Your task to perform on an android device: Search for sushi restaurants on Maps Image 0: 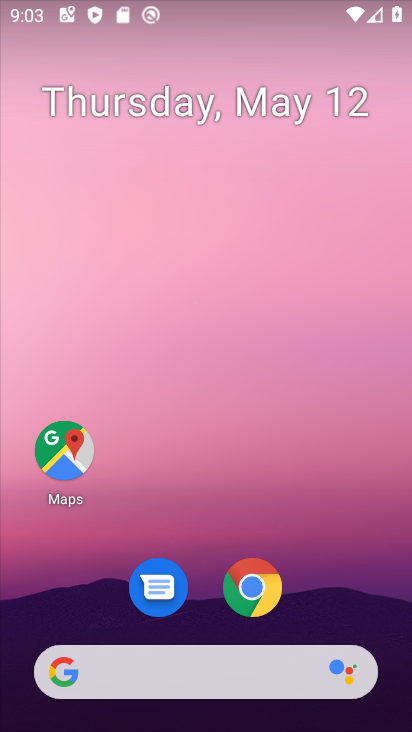
Step 0: drag from (304, 488) to (271, 256)
Your task to perform on an android device: Search for sushi restaurants on Maps Image 1: 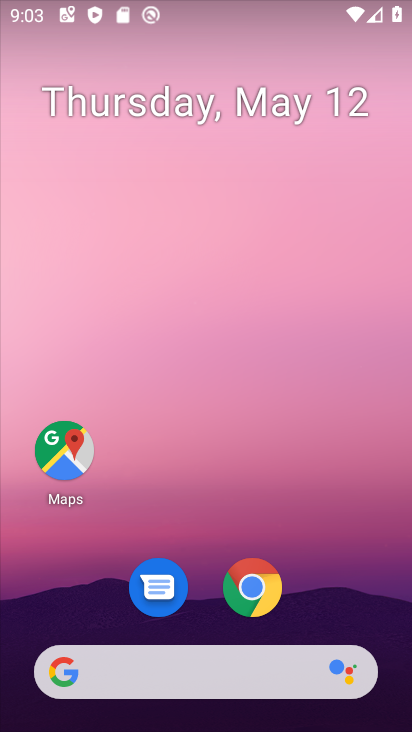
Step 1: drag from (288, 483) to (288, 246)
Your task to perform on an android device: Search for sushi restaurants on Maps Image 2: 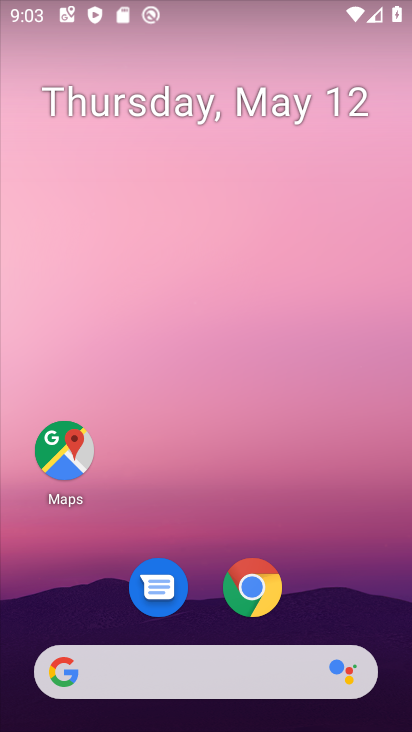
Step 2: click (65, 451)
Your task to perform on an android device: Search for sushi restaurants on Maps Image 3: 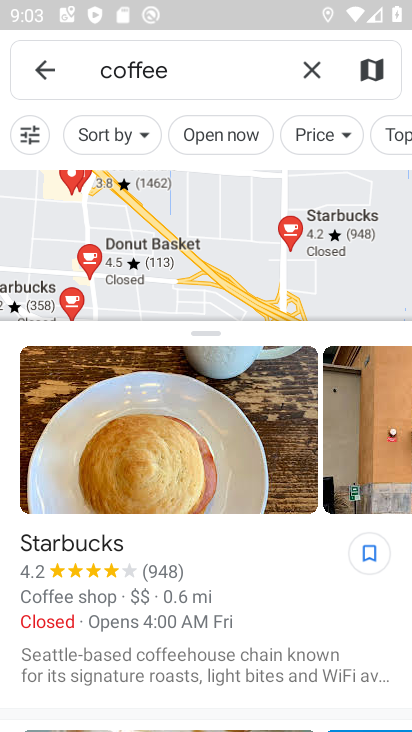
Step 3: click (309, 63)
Your task to perform on an android device: Search for sushi restaurants on Maps Image 4: 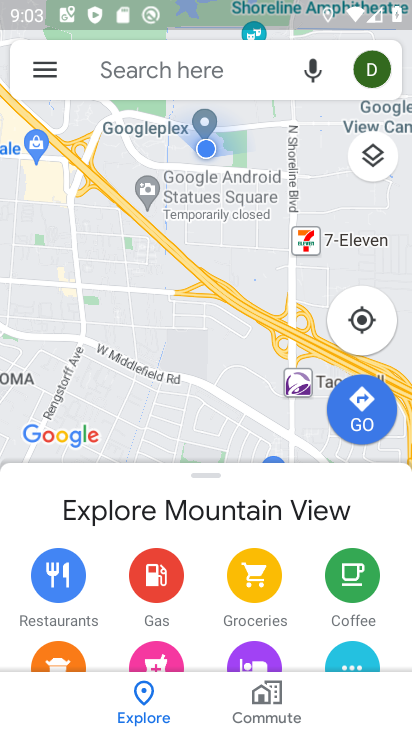
Step 4: click (117, 63)
Your task to perform on an android device: Search for sushi restaurants on Maps Image 5: 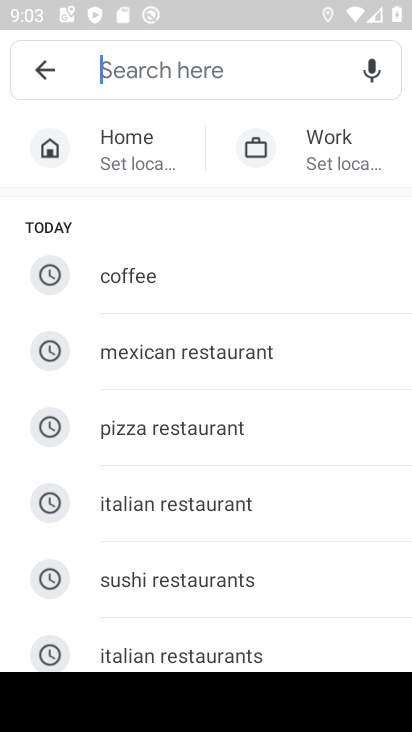
Step 5: type " sushi restaurants "
Your task to perform on an android device: Search for sushi restaurants on Maps Image 6: 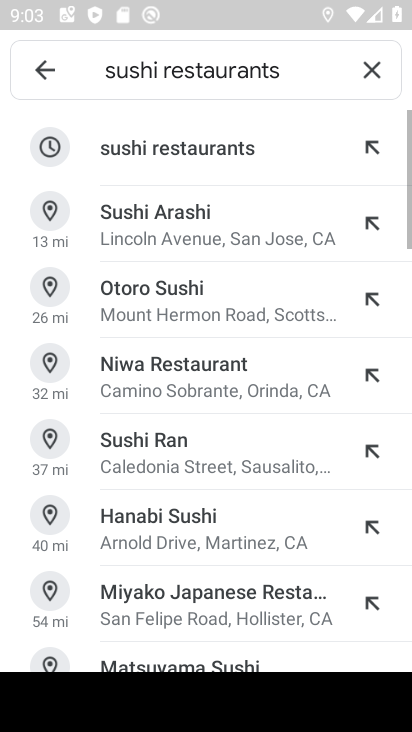
Step 6: click (146, 157)
Your task to perform on an android device: Search for sushi restaurants on Maps Image 7: 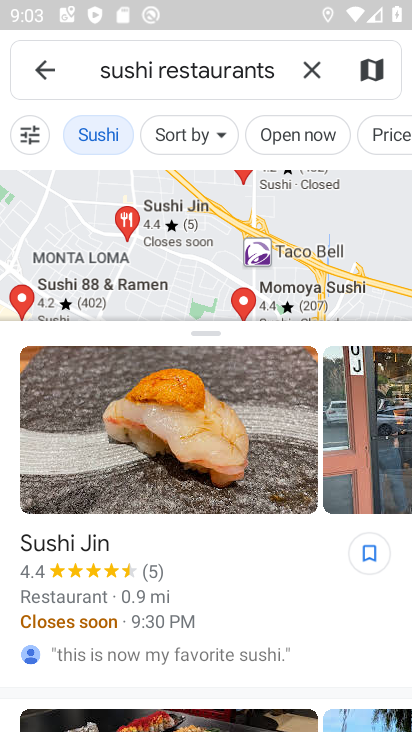
Step 7: task complete